Your task to perform on an android device: Do I have any events tomorrow? Image 0: 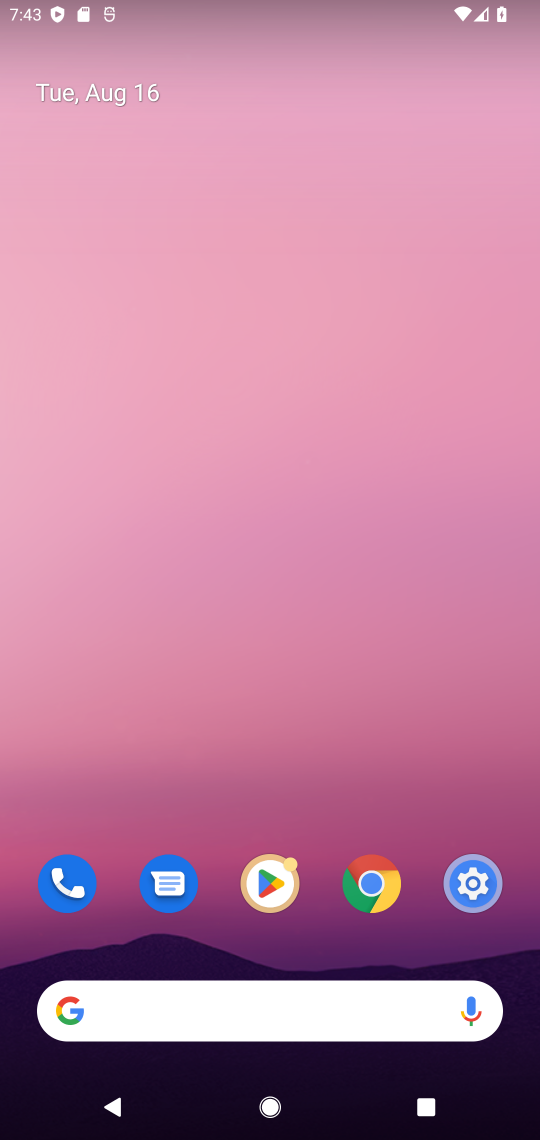
Step 0: drag from (312, 792) to (0, 316)
Your task to perform on an android device: Do I have any events tomorrow? Image 1: 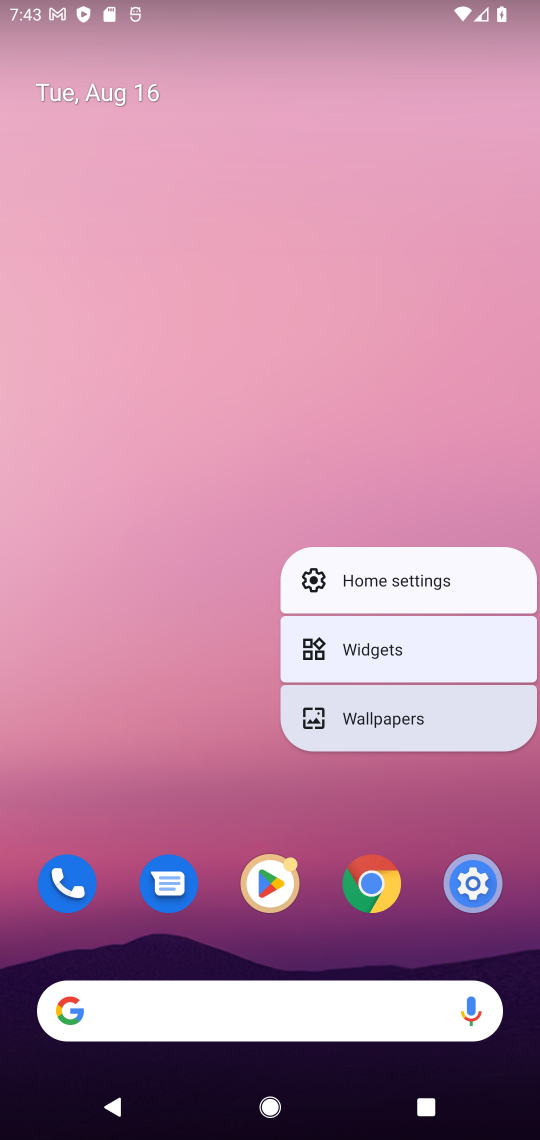
Step 1: click (88, 403)
Your task to perform on an android device: Do I have any events tomorrow? Image 2: 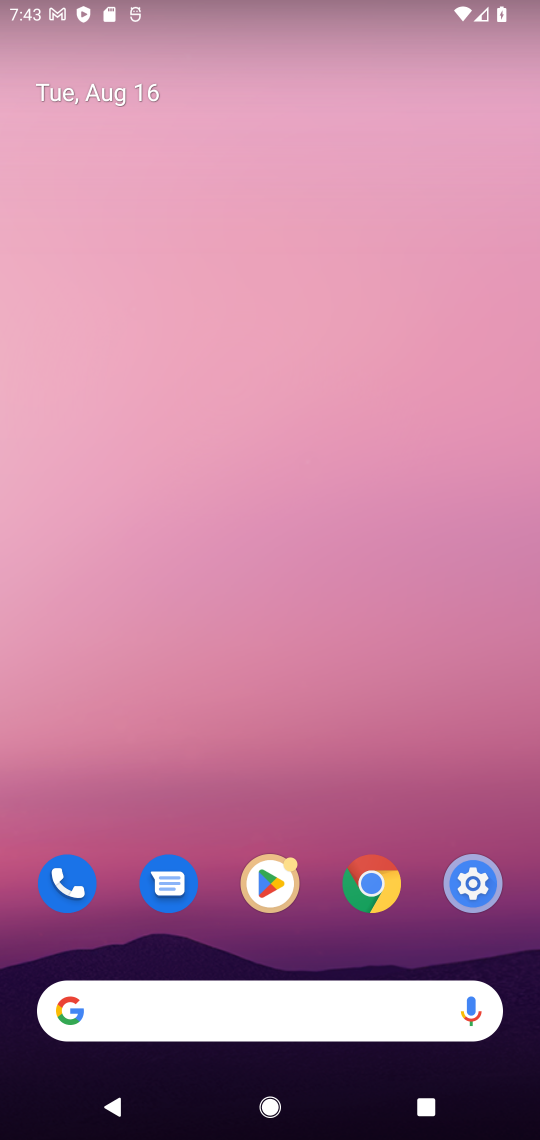
Step 2: drag from (299, 814) to (303, 87)
Your task to perform on an android device: Do I have any events tomorrow? Image 3: 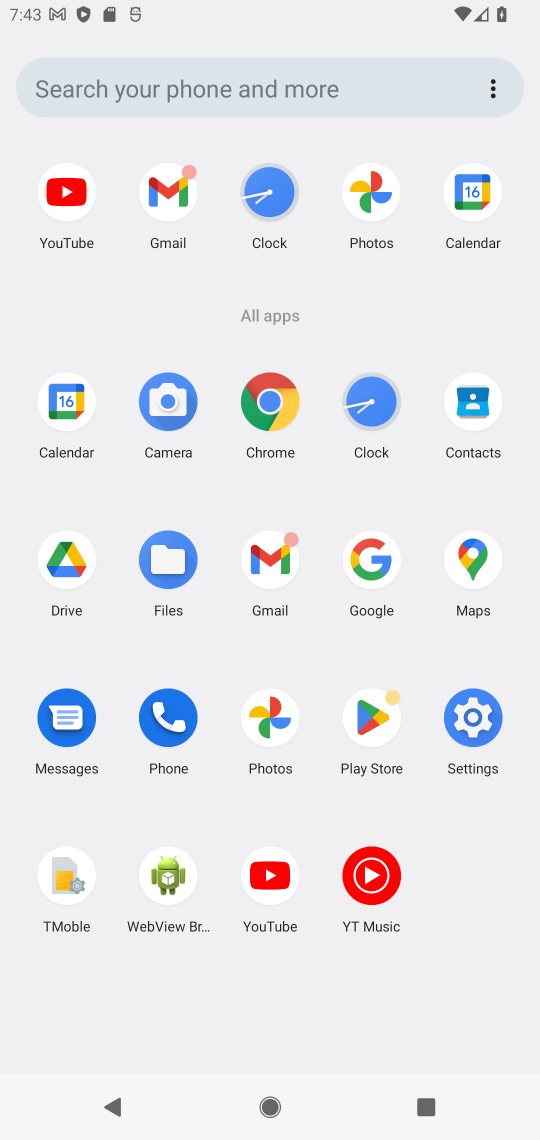
Step 3: click (50, 400)
Your task to perform on an android device: Do I have any events tomorrow? Image 4: 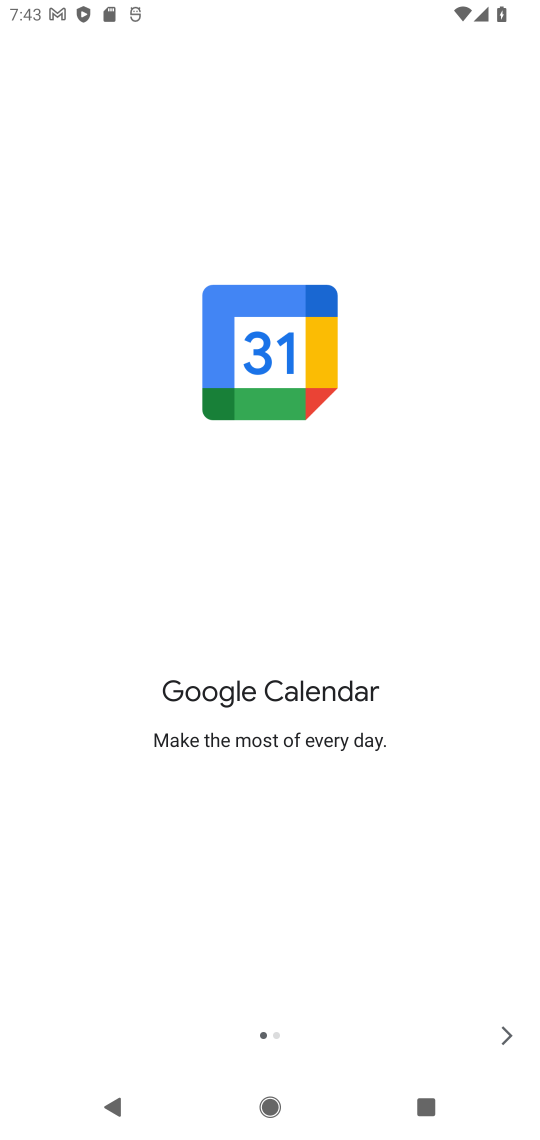
Step 4: click (504, 1028)
Your task to perform on an android device: Do I have any events tomorrow? Image 5: 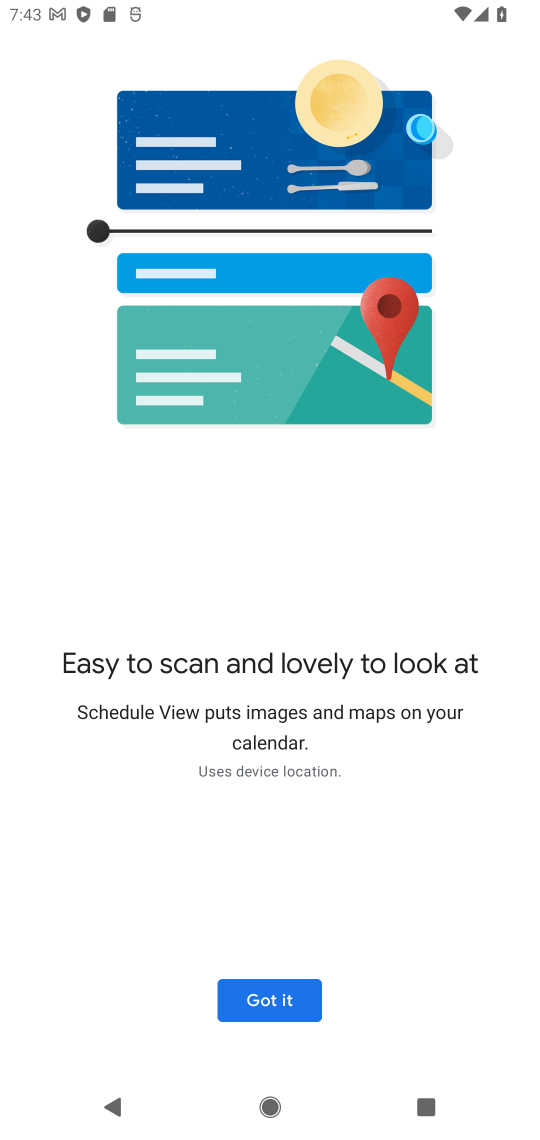
Step 5: click (290, 992)
Your task to perform on an android device: Do I have any events tomorrow? Image 6: 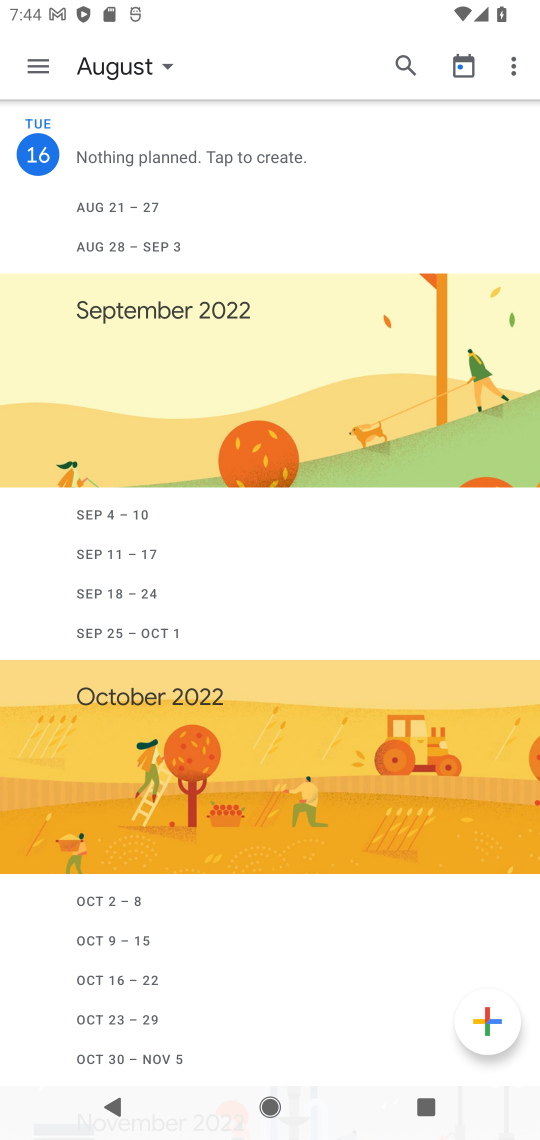
Step 6: click (28, 44)
Your task to perform on an android device: Do I have any events tomorrow? Image 7: 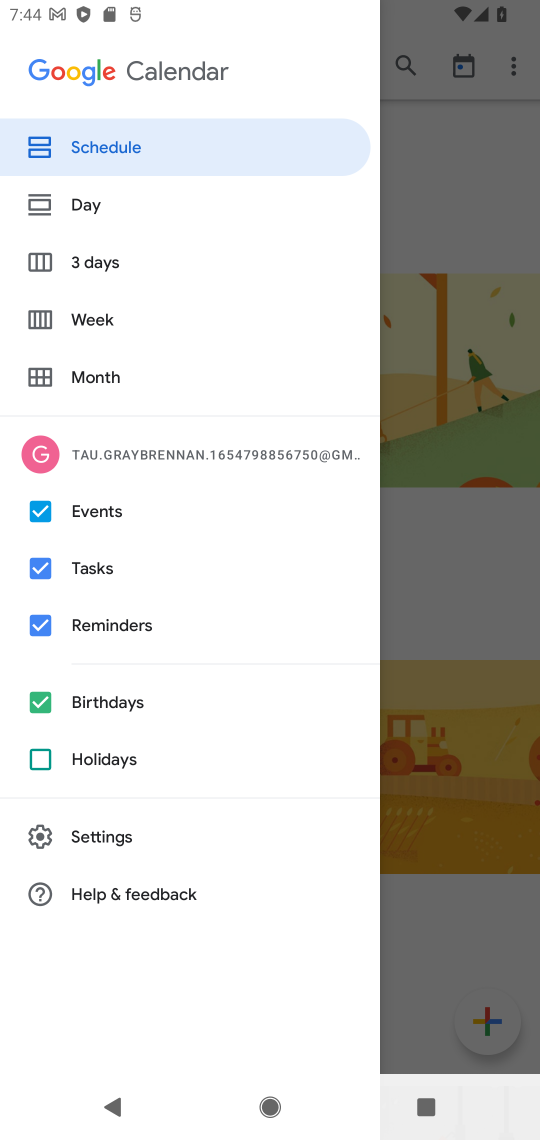
Step 7: click (99, 207)
Your task to perform on an android device: Do I have any events tomorrow? Image 8: 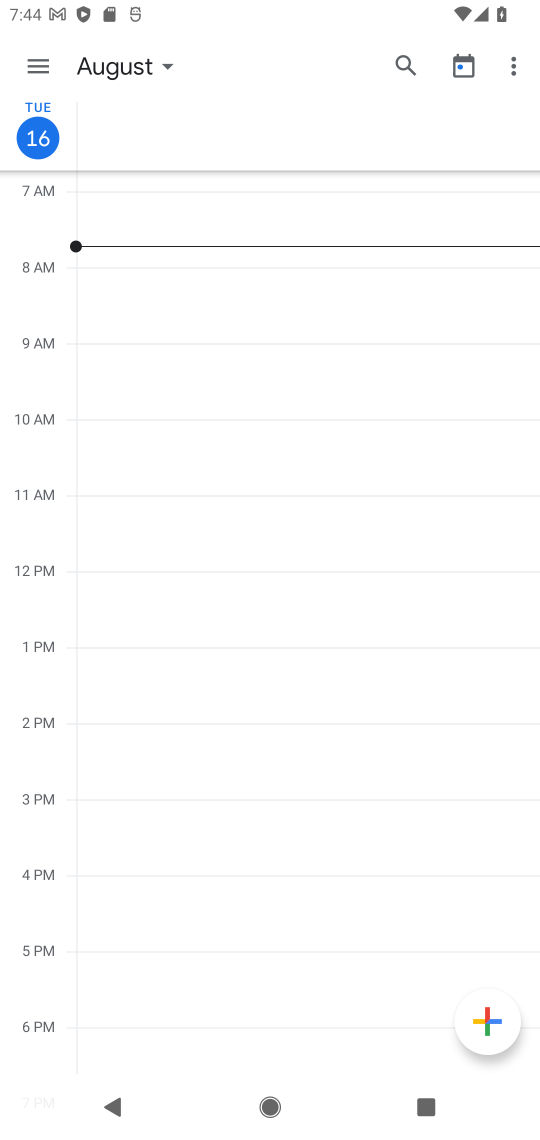
Step 8: click (155, 62)
Your task to perform on an android device: Do I have any events tomorrow? Image 9: 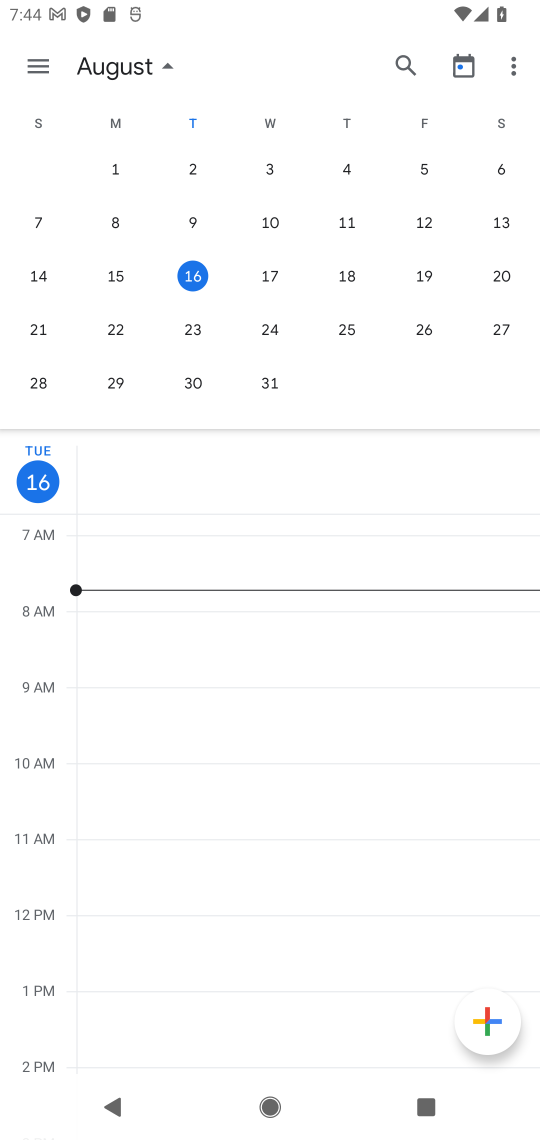
Step 9: click (267, 283)
Your task to perform on an android device: Do I have any events tomorrow? Image 10: 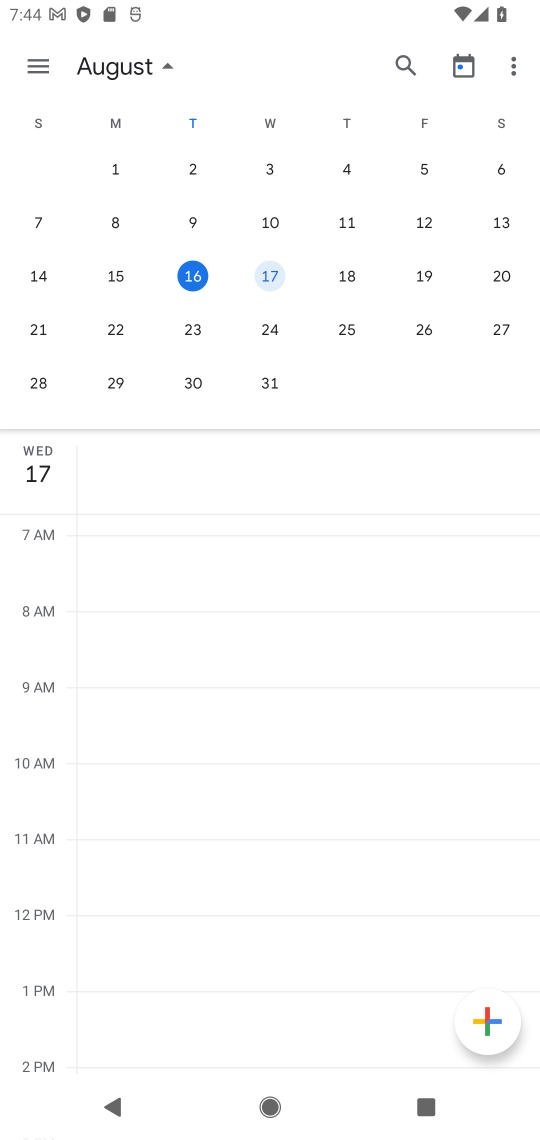
Step 10: task complete